Your task to perform on an android device: make emails show in primary in the gmail app Image 0: 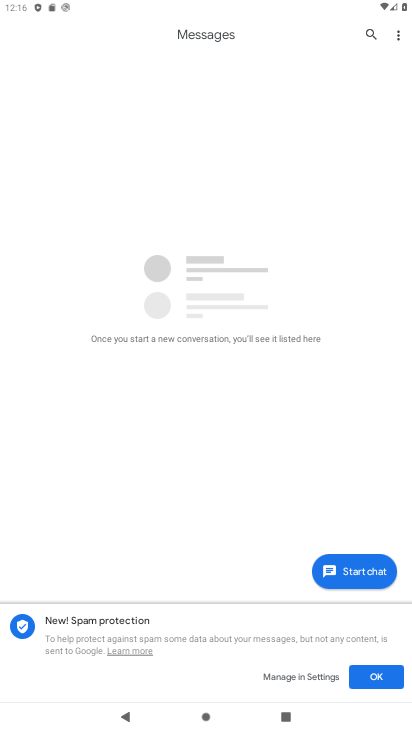
Step 0: press home button
Your task to perform on an android device: make emails show in primary in the gmail app Image 1: 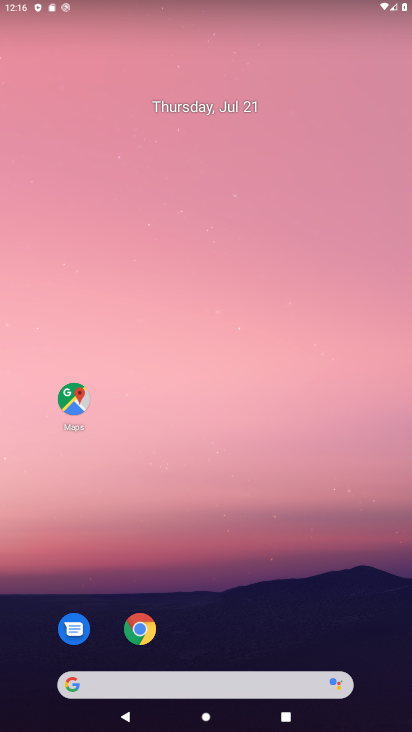
Step 1: click (207, 56)
Your task to perform on an android device: make emails show in primary in the gmail app Image 2: 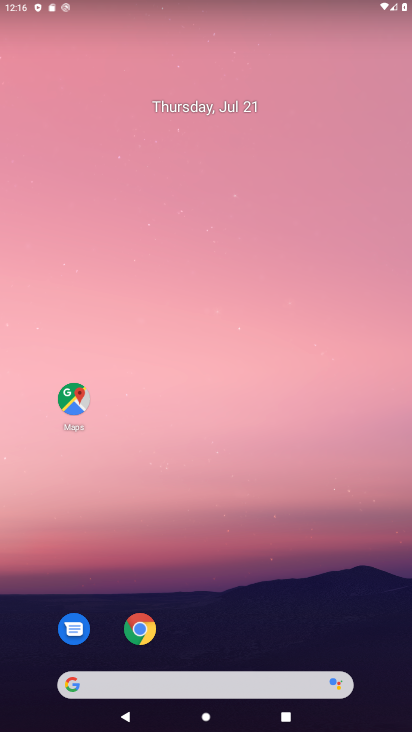
Step 2: drag from (290, 477) to (255, 18)
Your task to perform on an android device: make emails show in primary in the gmail app Image 3: 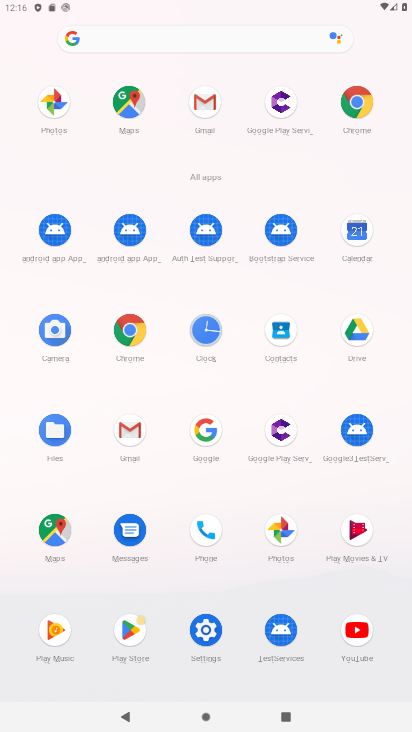
Step 3: click (212, 95)
Your task to perform on an android device: make emails show in primary in the gmail app Image 4: 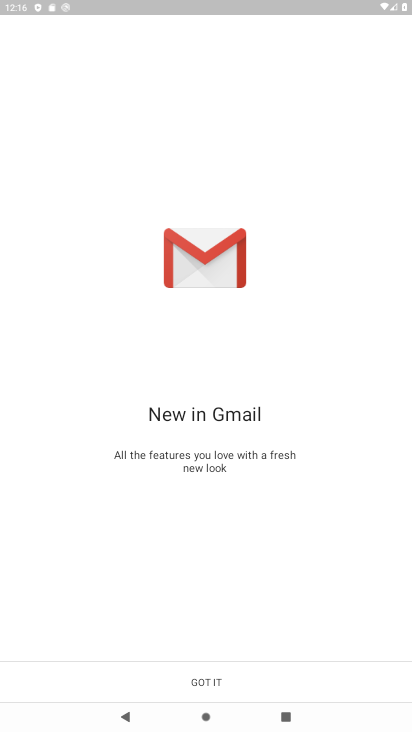
Step 4: click (222, 683)
Your task to perform on an android device: make emails show in primary in the gmail app Image 5: 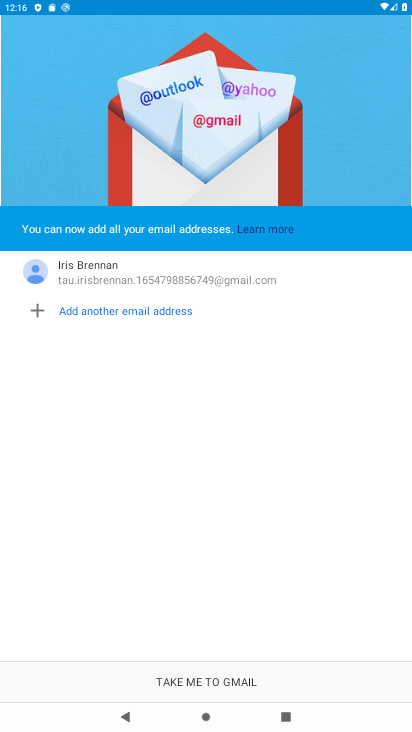
Step 5: click (222, 683)
Your task to perform on an android device: make emails show in primary in the gmail app Image 6: 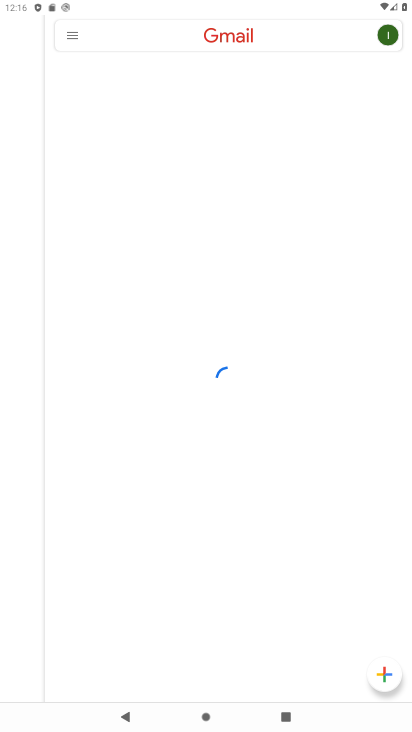
Step 6: click (31, 34)
Your task to perform on an android device: make emails show in primary in the gmail app Image 7: 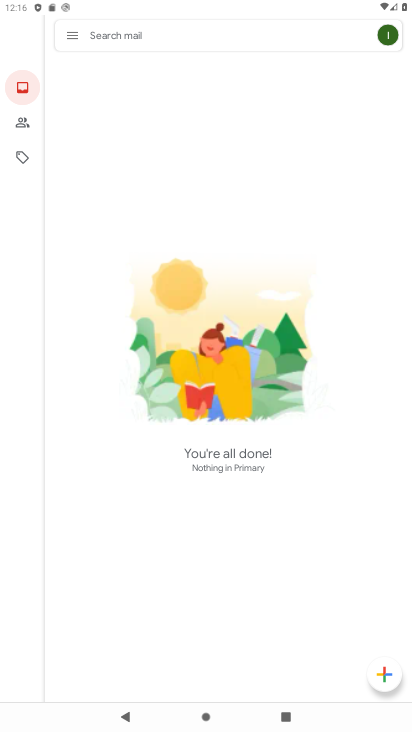
Step 7: click (73, 37)
Your task to perform on an android device: make emails show in primary in the gmail app Image 8: 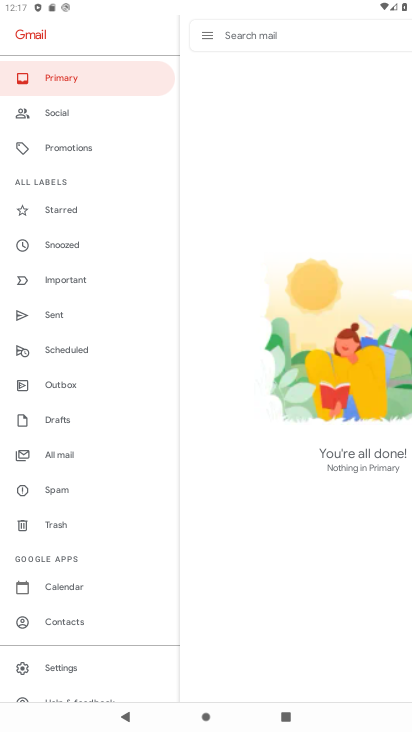
Step 8: click (61, 675)
Your task to perform on an android device: make emails show in primary in the gmail app Image 9: 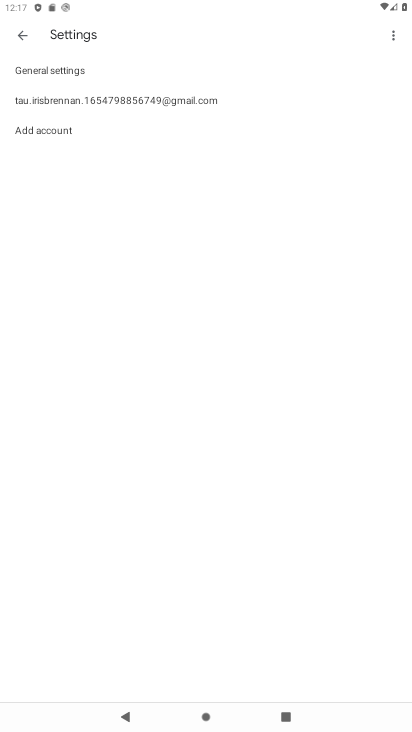
Step 9: click (129, 91)
Your task to perform on an android device: make emails show in primary in the gmail app Image 10: 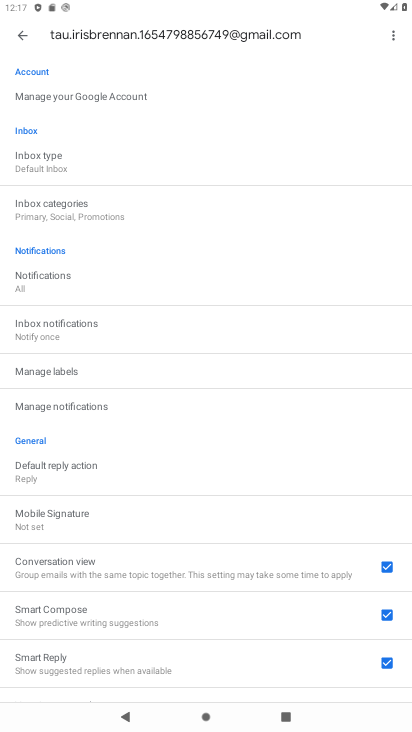
Step 10: click (91, 219)
Your task to perform on an android device: make emails show in primary in the gmail app Image 11: 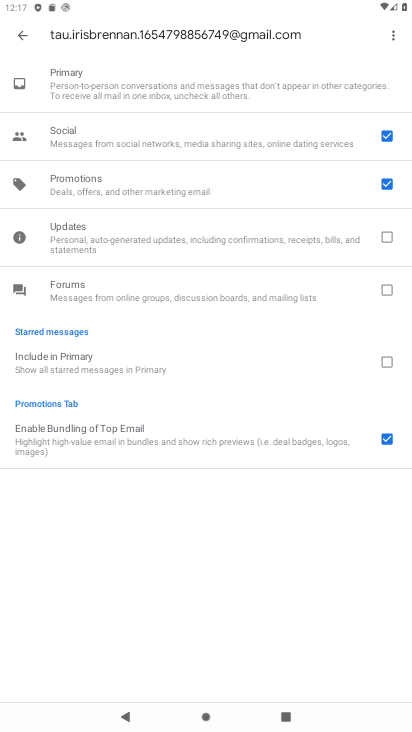
Step 11: task complete